Your task to perform on an android device: What's the weather today? Image 0: 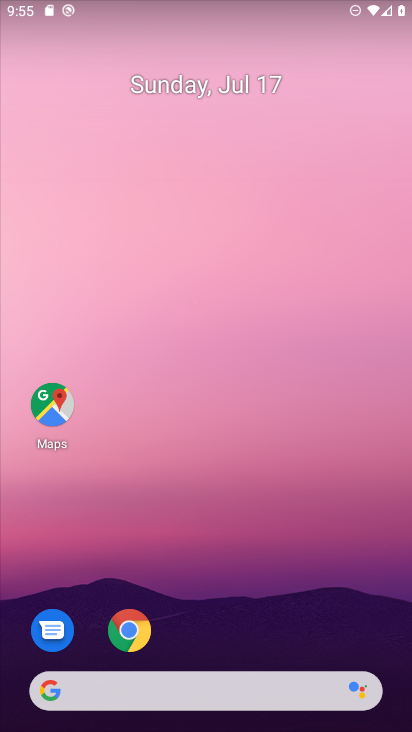
Step 0: drag from (264, 622) to (278, 183)
Your task to perform on an android device: What's the weather today? Image 1: 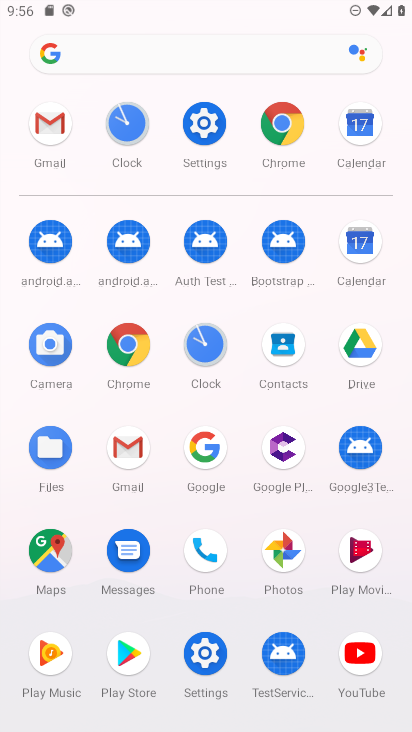
Step 1: click (354, 233)
Your task to perform on an android device: What's the weather today? Image 2: 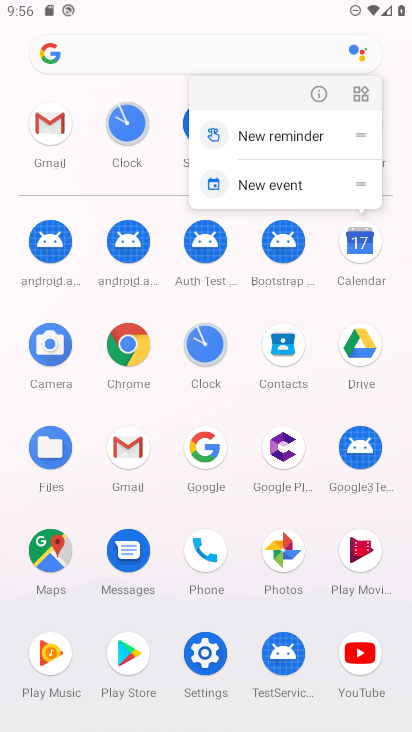
Step 2: click (363, 230)
Your task to perform on an android device: What's the weather today? Image 3: 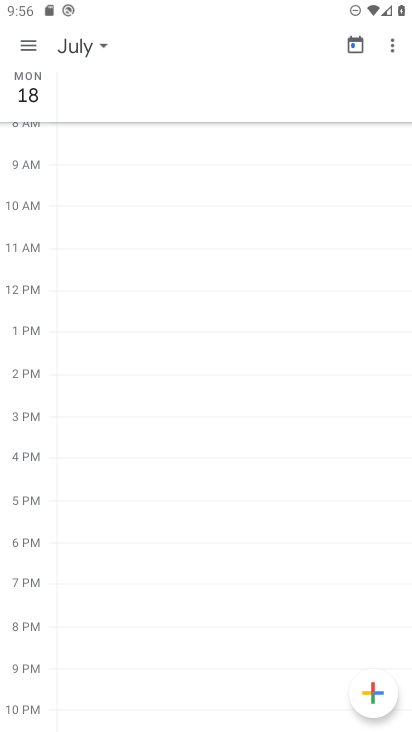
Step 3: task complete